Your task to perform on an android device: Add panasonic triple a to the cart on costco.com, then select checkout. Image 0: 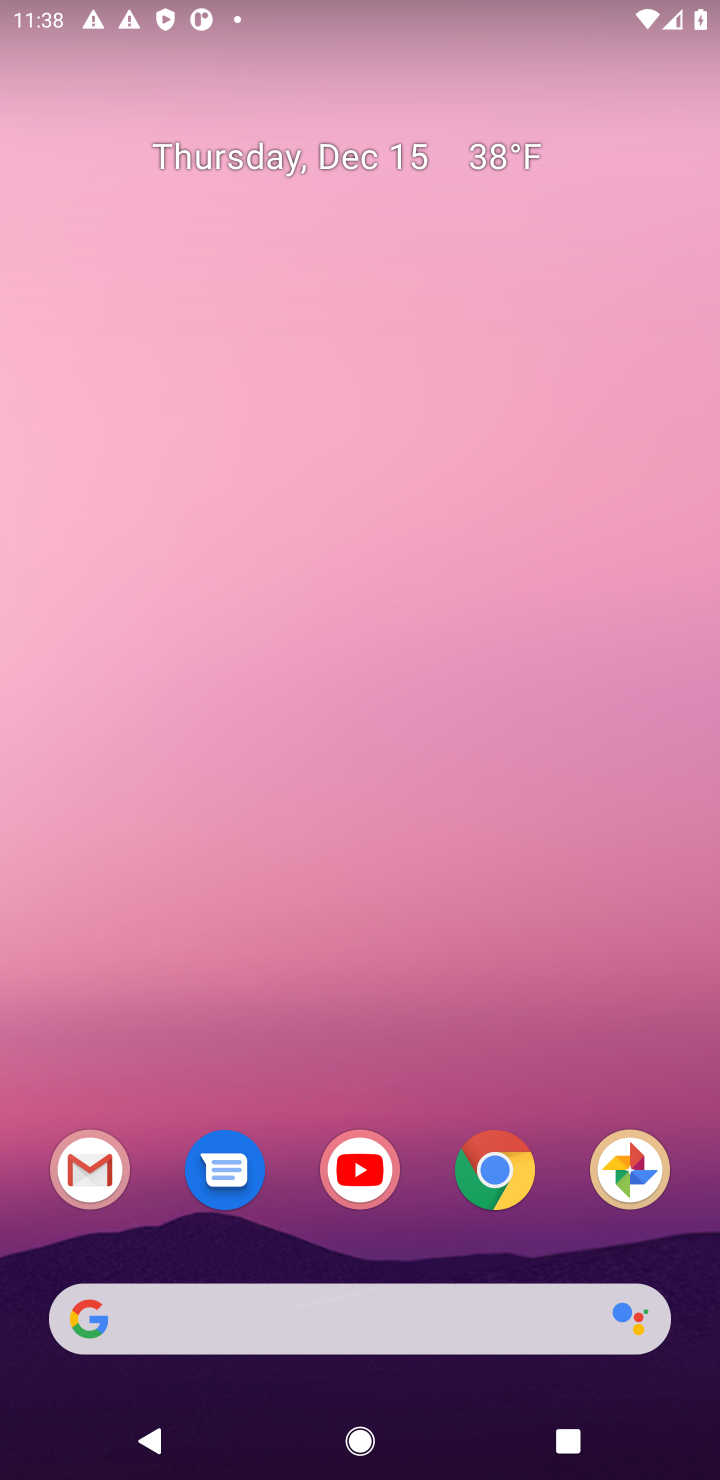
Step 0: click (490, 1170)
Your task to perform on an android device: Add panasonic triple a to the cart on costco.com, then select checkout. Image 1: 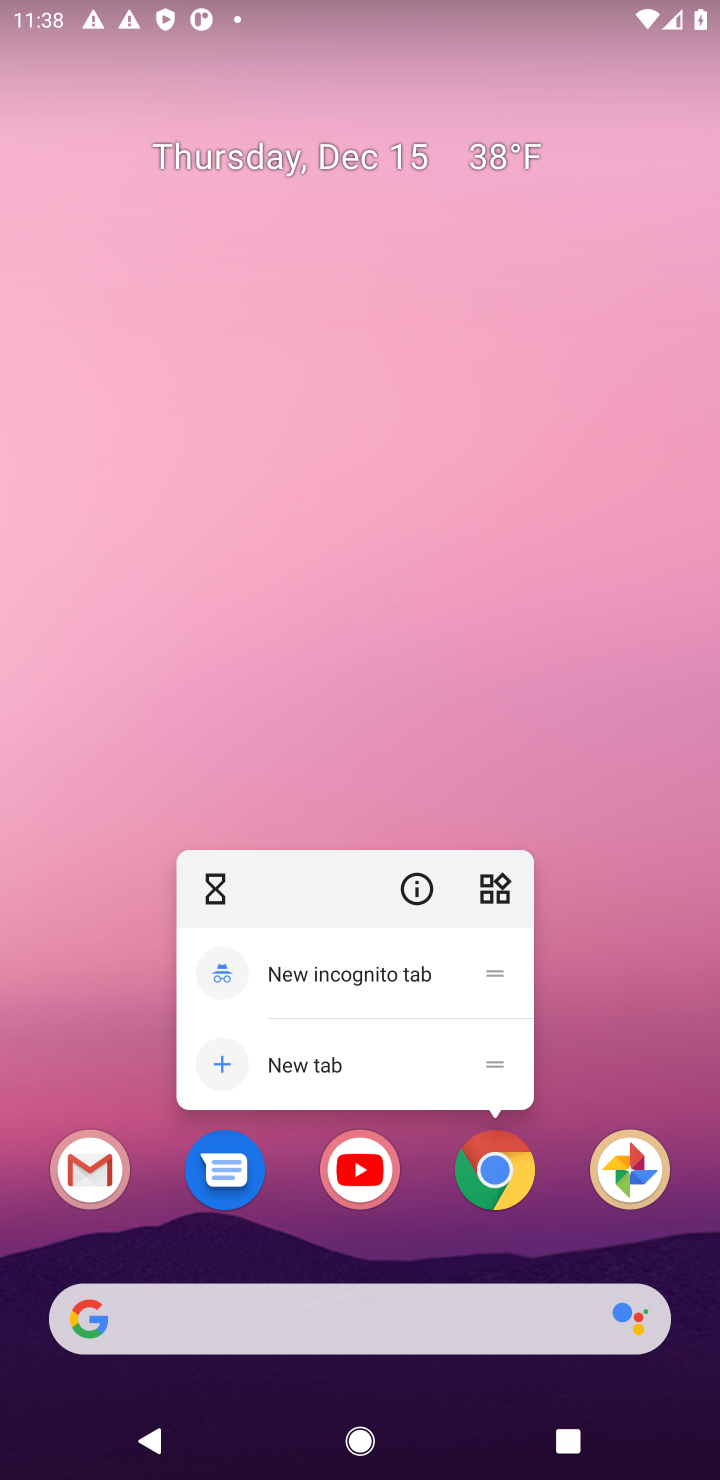
Step 1: click (490, 1170)
Your task to perform on an android device: Add panasonic triple a to the cart on costco.com, then select checkout. Image 2: 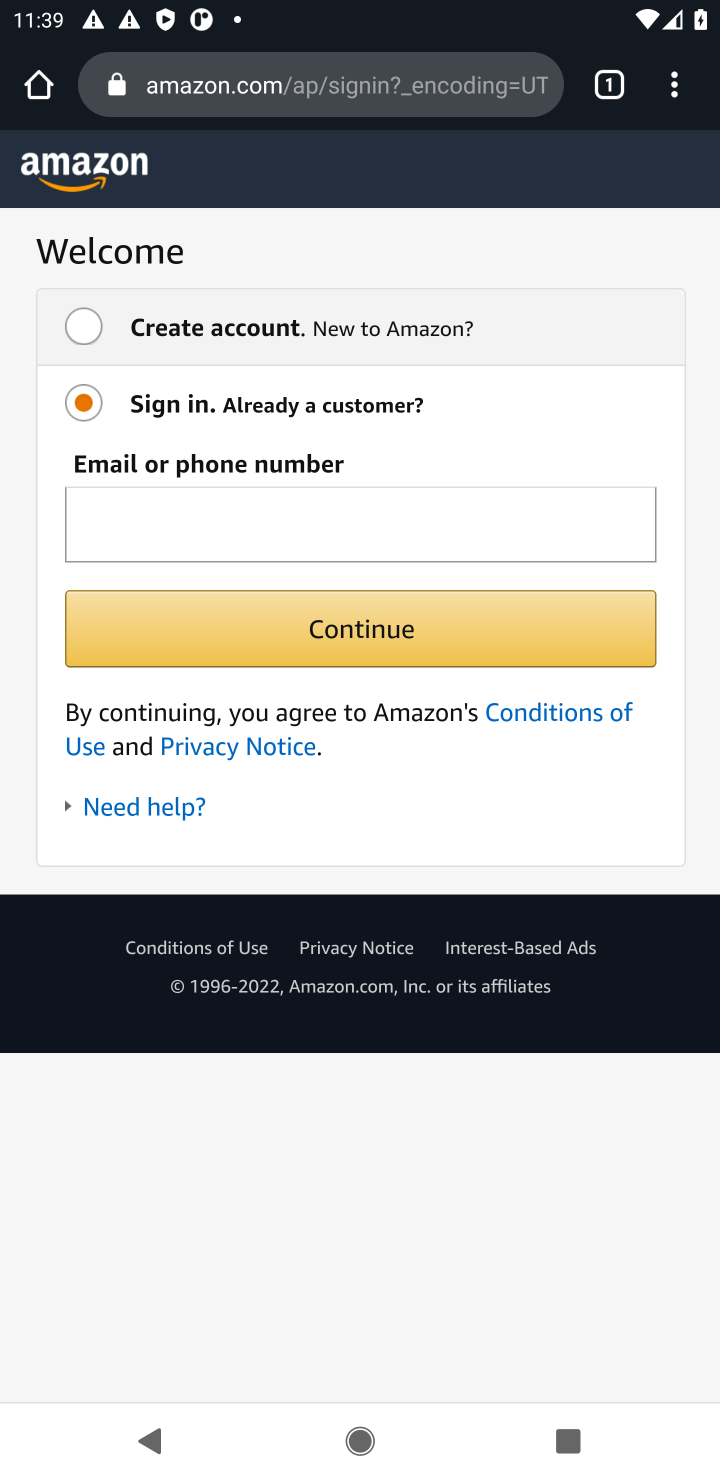
Step 2: click (277, 96)
Your task to perform on an android device: Add panasonic triple a to the cart on costco.com, then select checkout. Image 3: 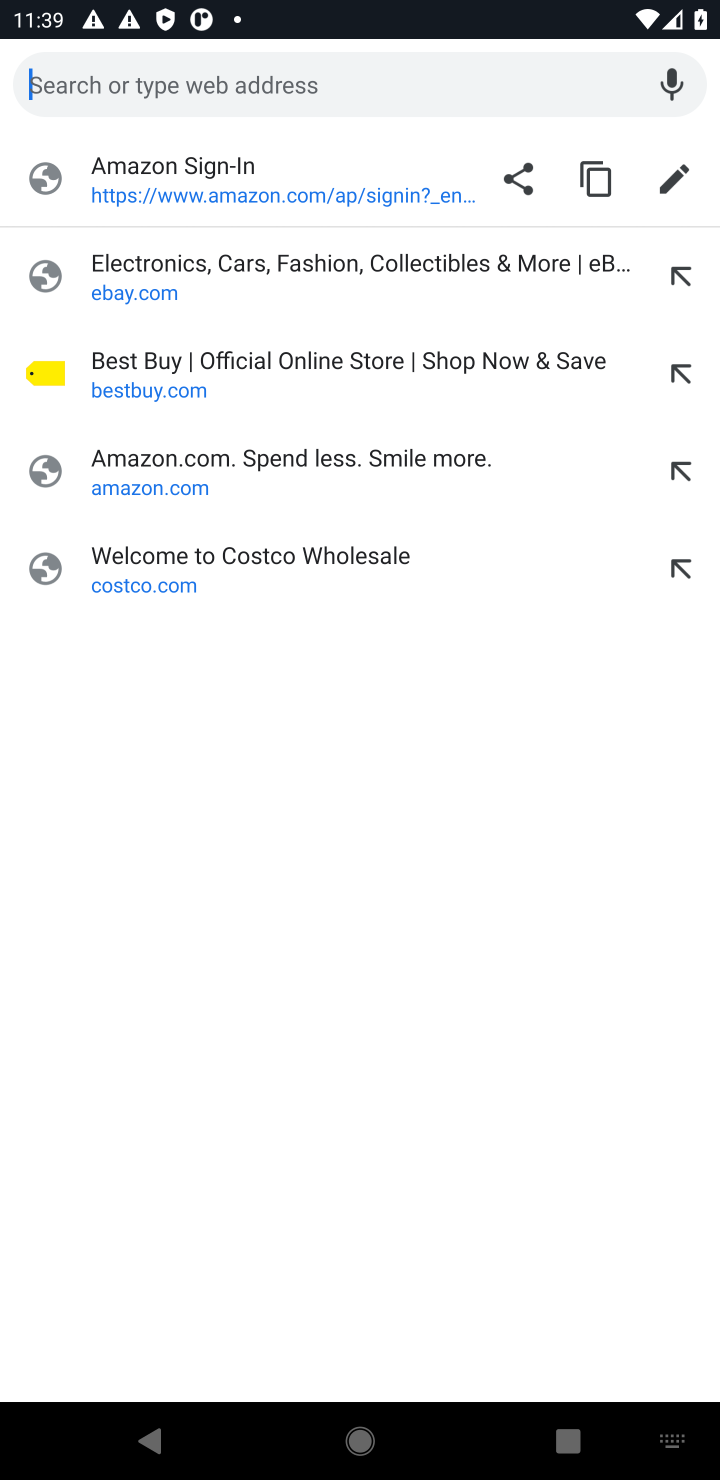
Step 3: click (114, 563)
Your task to perform on an android device: Add panasonic triple a to the cart on costco.com, then select checkout. Image 4: 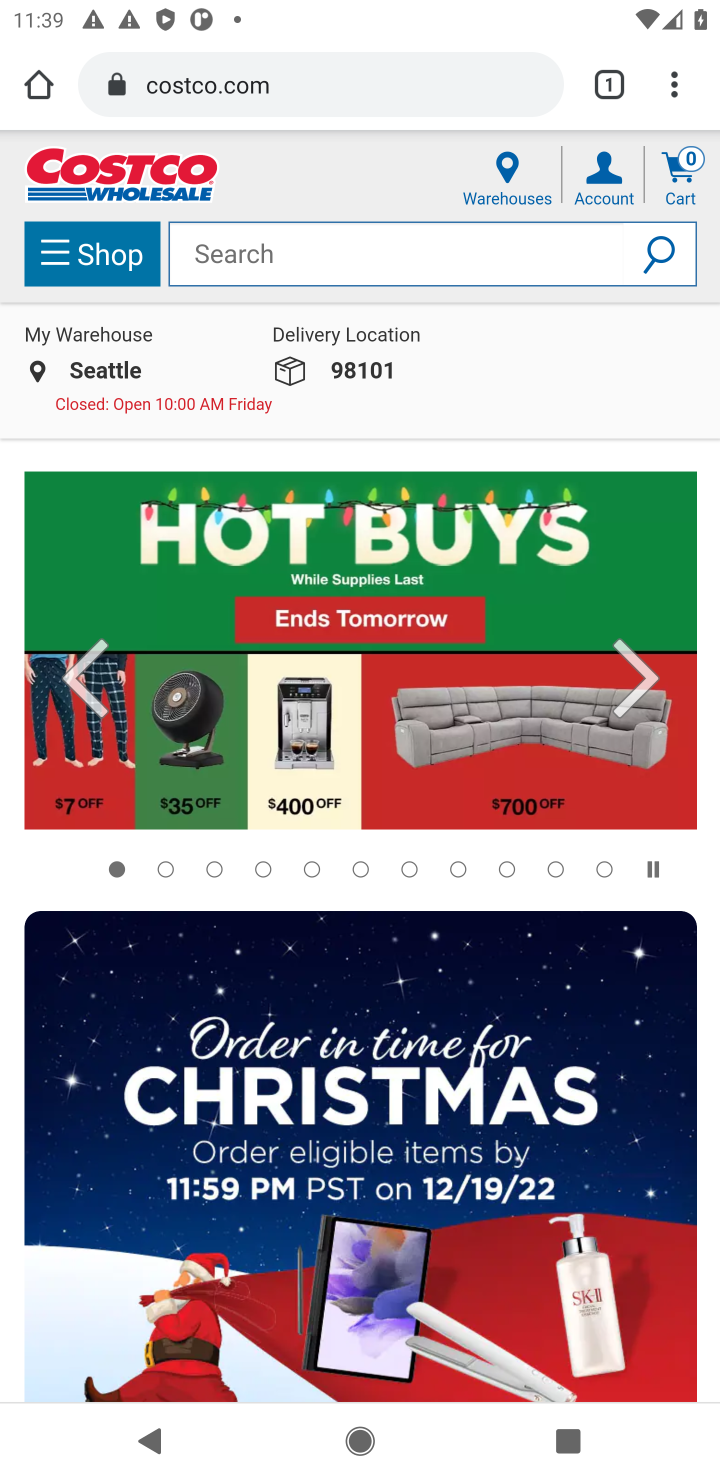
Step 4: click (239, 264)
Your task to perform on an android device: Add panasonic triple a to the cart on costco.com, then select checkout. Image 5: 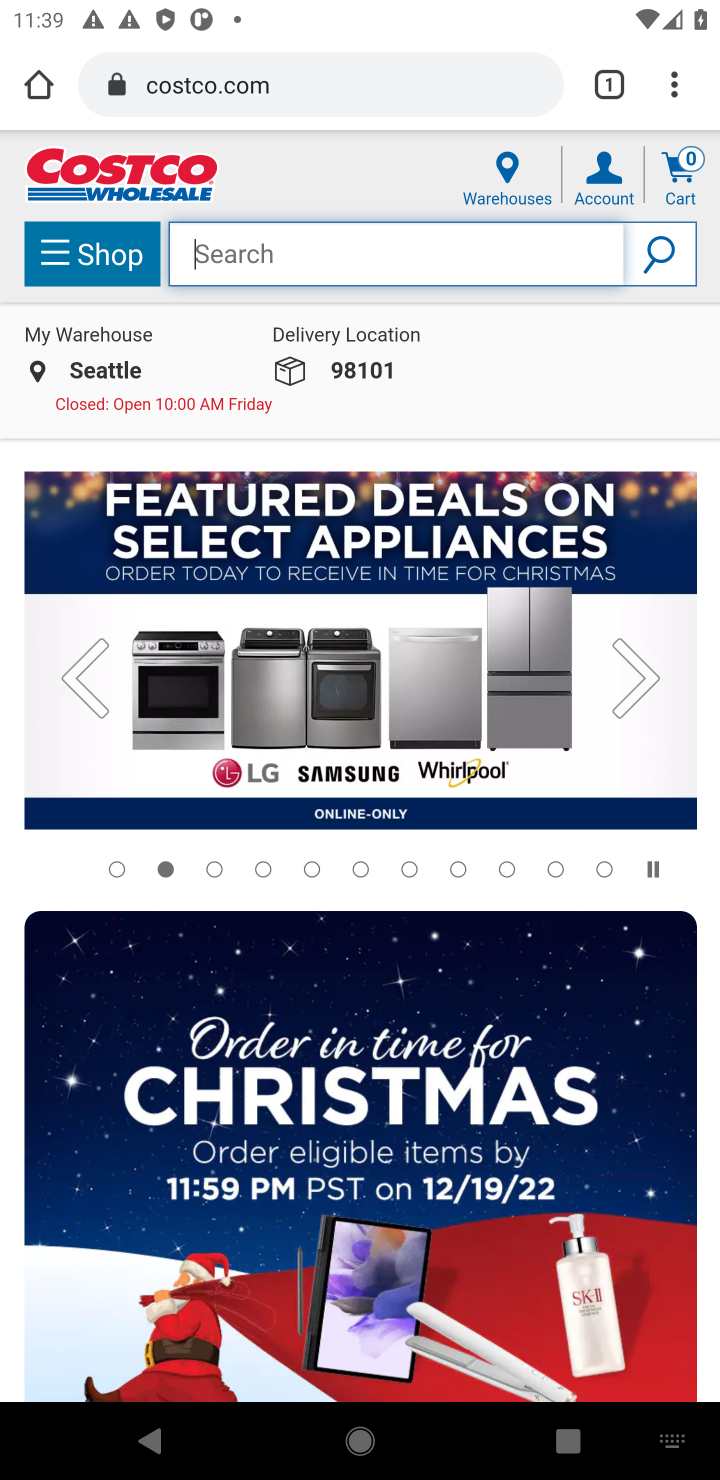
Step 5: type "panasonic triple a"
Your task to perform on an android device: Add panasonic triple a to the cart on costco.com, then select checkout. Image 6: 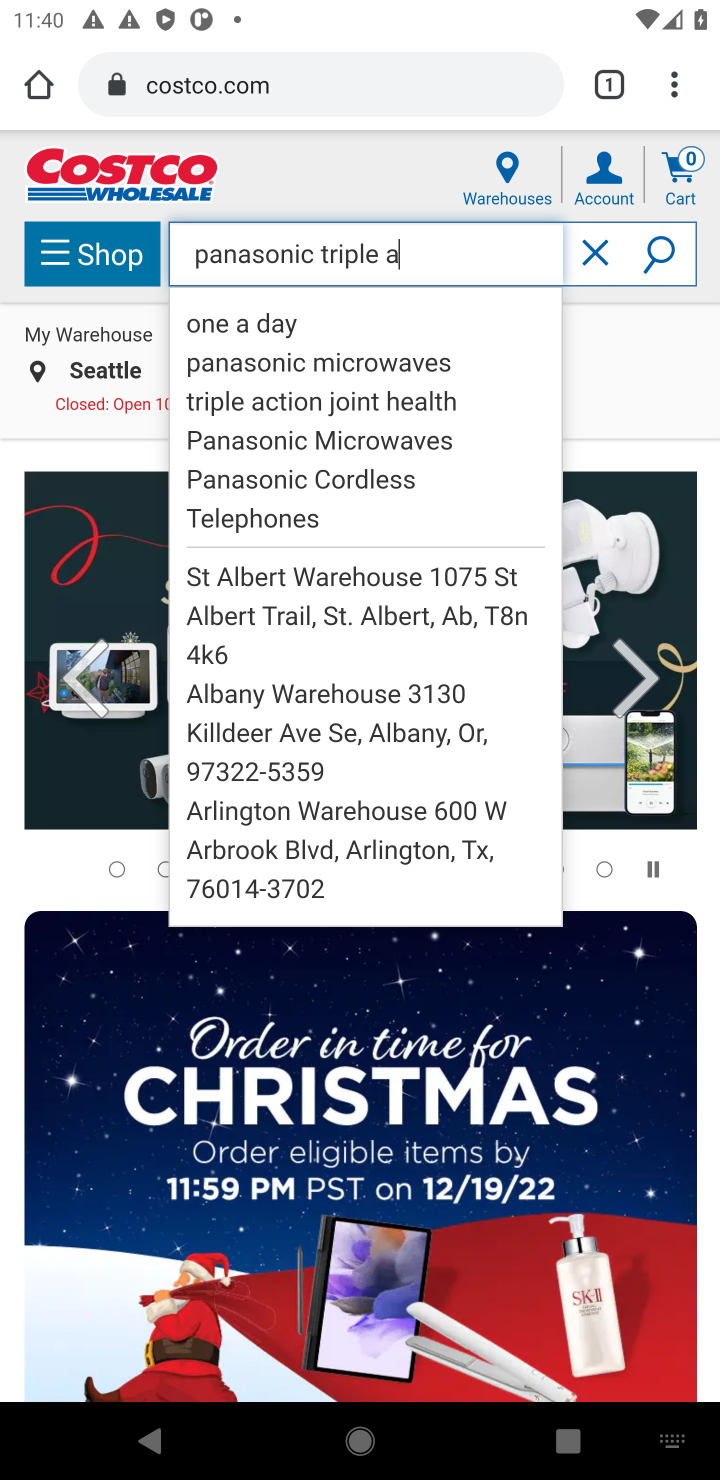
Step 6: click (649, 258)
Your task to perform on an android device: Add panasonic triple a to the cart on costco.com, then select checkout. Image 7: 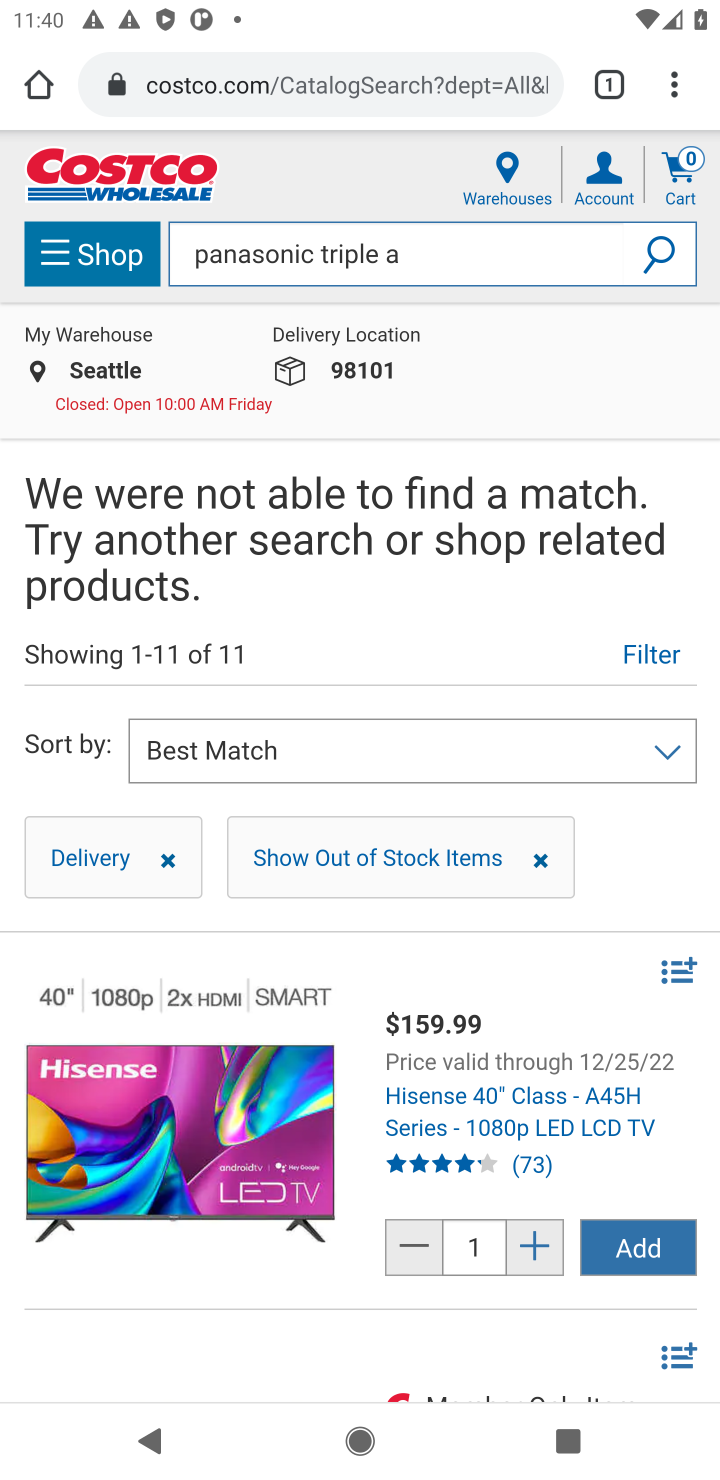
Step 7: task complete